Your task to perform on an android device: turn off location Image 0: 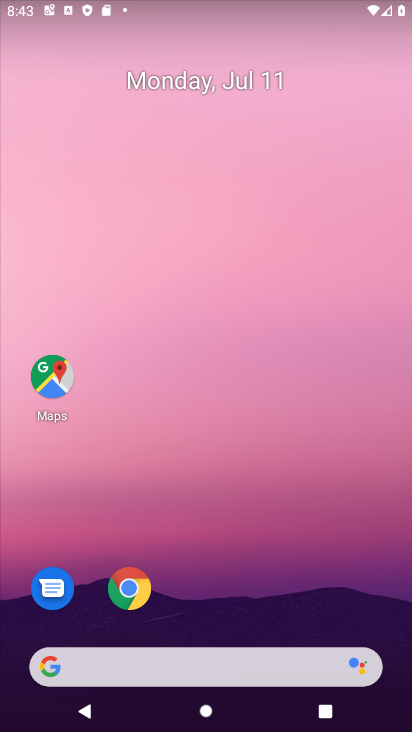
Step 0: drag from (299, 618) to (304, 38)
Your task to perform on an android device: turn off location Image 1: 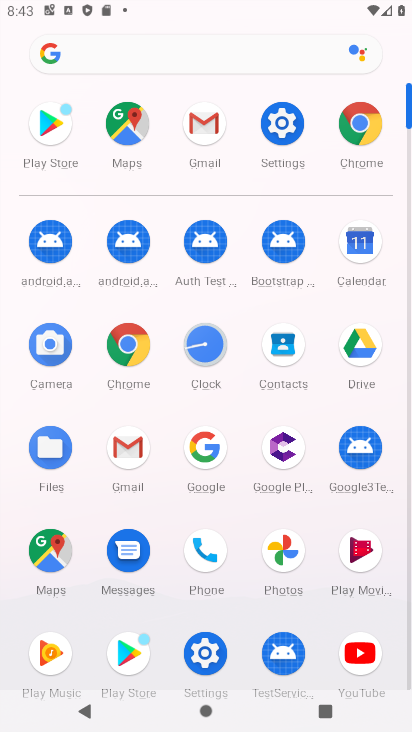
Step 1: click (289, 104)
Your task to perform on an android device: turn off location Image 2: 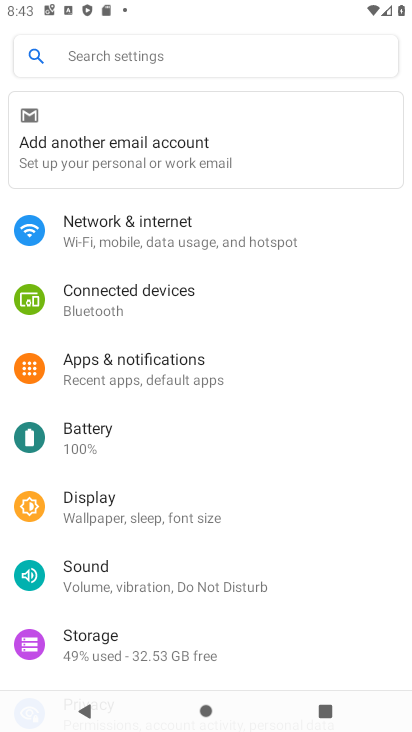
Step 2: drag from (131, 588) to (134, 314)
Your task to perform on an android device: turn off location Image 3: 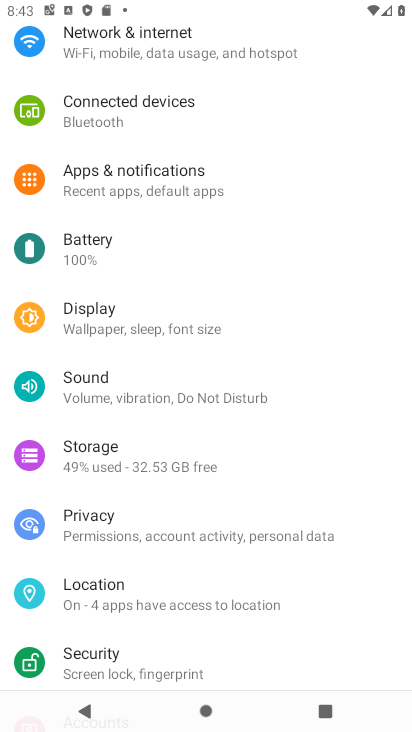
Step 3: click (131, 586)
Your task to perform on an android device: turn off location Image 4: 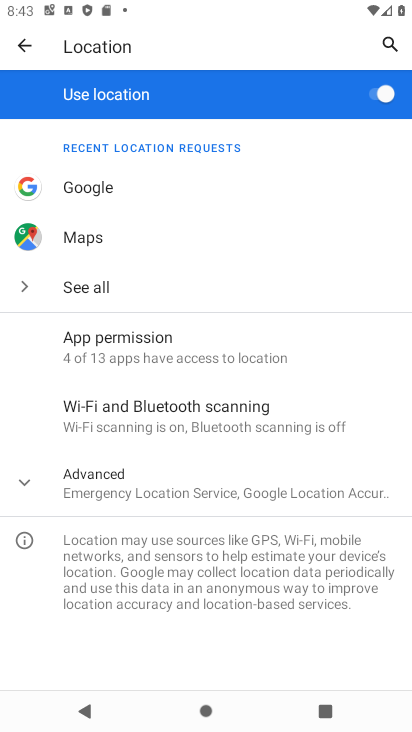
Step 4: click (109, 477)
Your task to perform on an android device: turn off location Image 5: 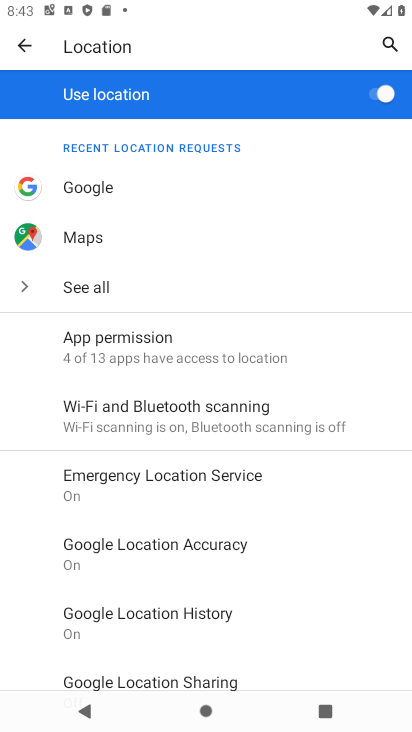
Step 5: click (358, 93)
Your task to perform on an android device: turn off location Image 6: 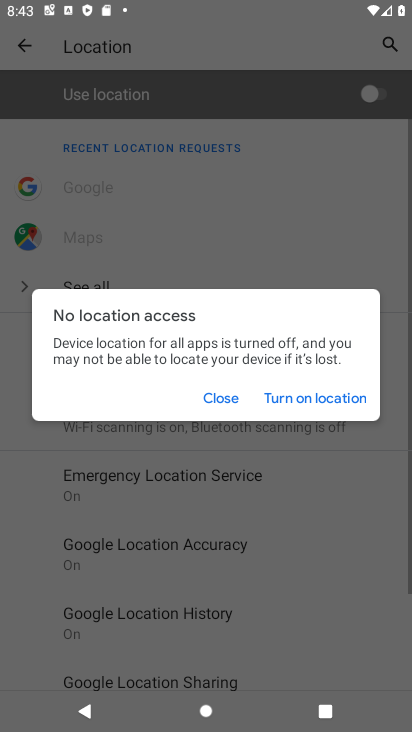
Step 6: task complete